Your task to perform on an android device: open app "Duolingo: language lessons" (install if not already installed), go to login, and select forgot password Image 0: 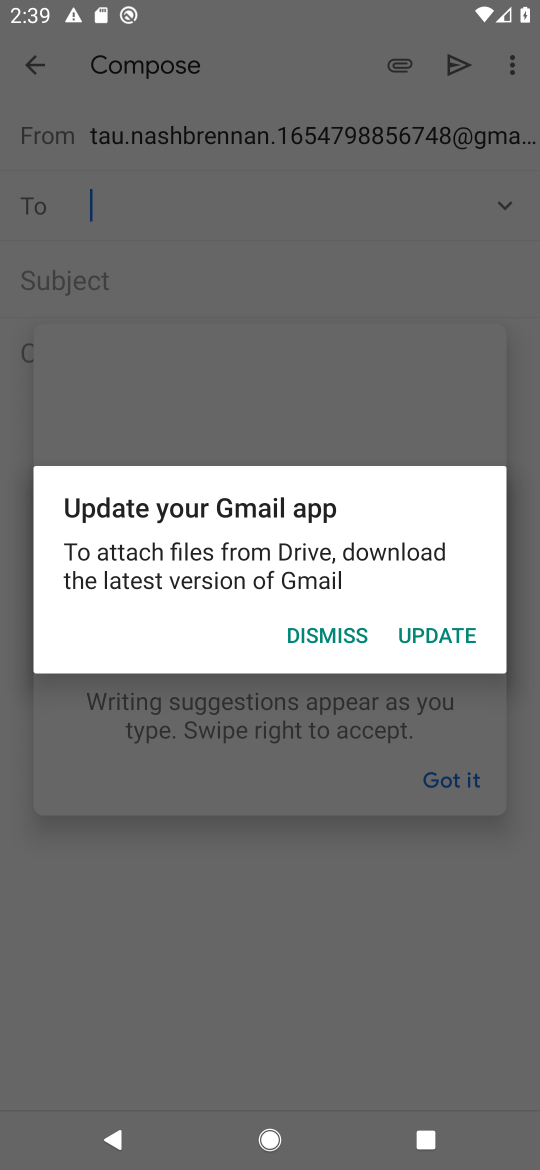
Step 0: press home button
Your task to perform on an android device: open app "Duolingo: language lessons" (install if not already installed), go to login, and select forgot password Image 1: 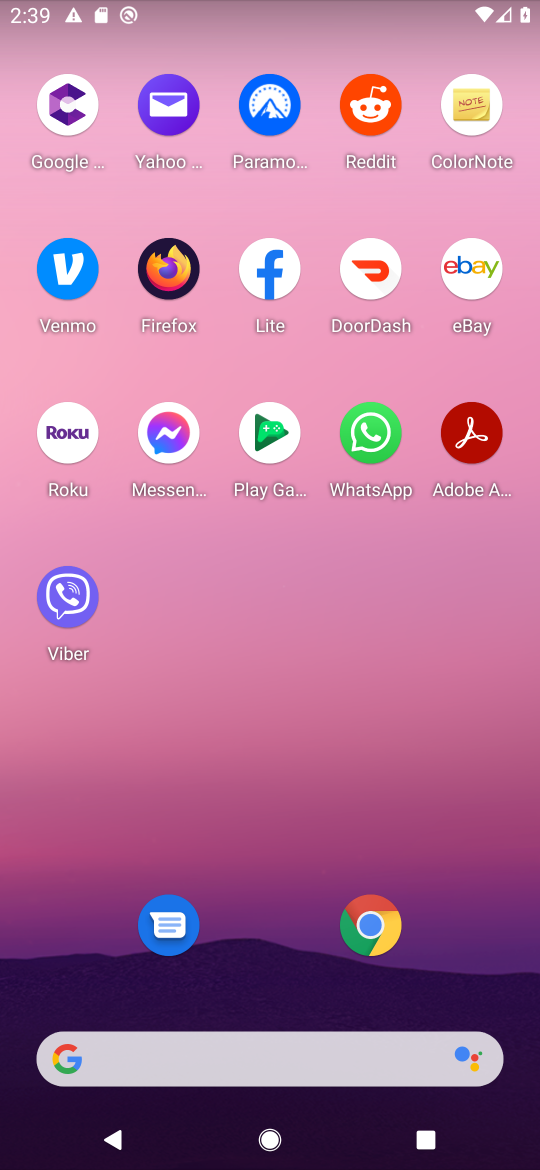
Step 1: drag from (274, 890) to (268, 247)
Your task to perform on an android device: open app "Duolingo: language lessons" (install if not already installed), go to login, and select forgot password Image 2: 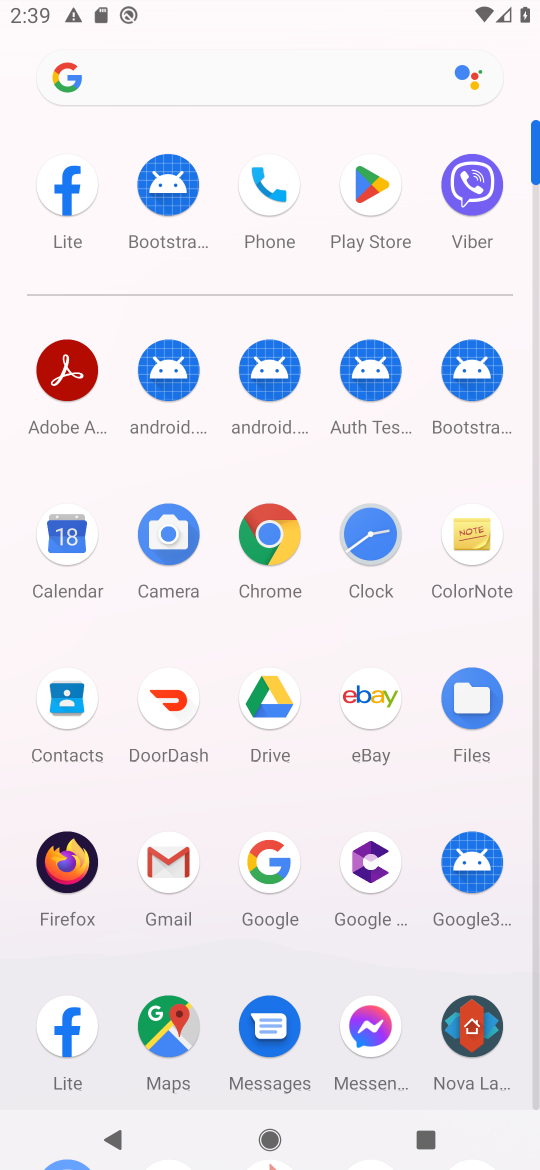
Step 2: click (367, 184)
Your task to perform on an android device: open app "Duolingo: language lessons" (install if not already installed), go to login, and select forgot password Image 3: 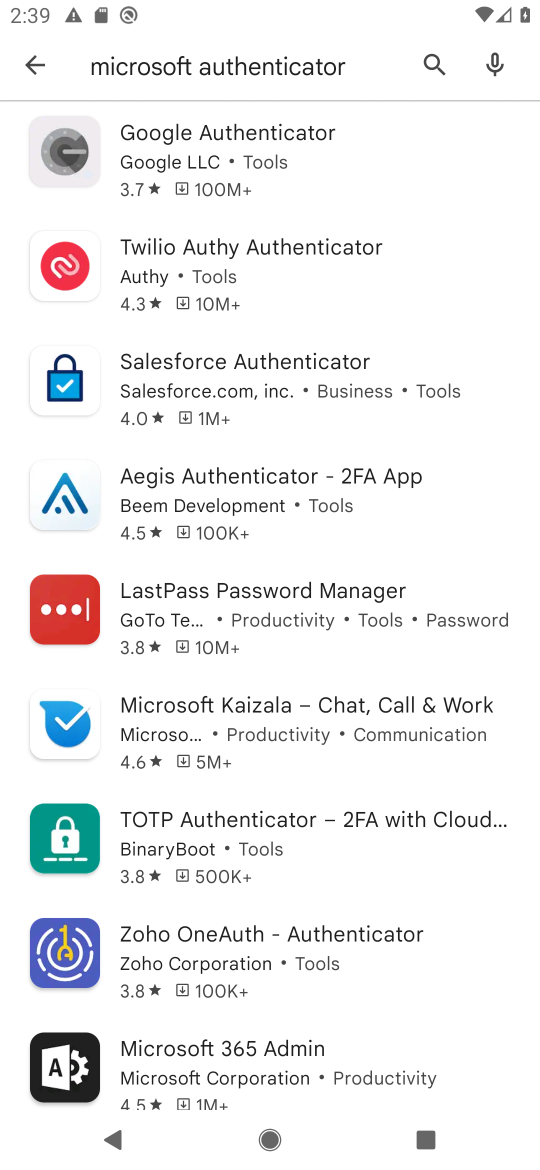
Step 3: click (35, 65)
Your task to perform on an android device: open app "Duolingo: language lessons" (install if not already installed), go to login, and select forgot password Image 4: 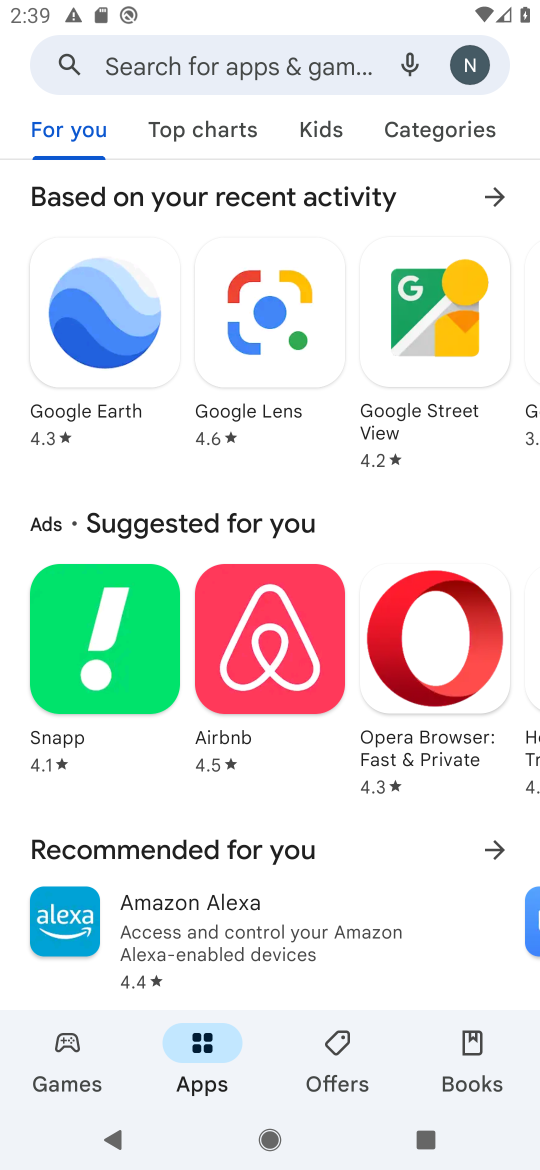
Step 4: click (191, 63)
Your task to perform on an android device: open app "Duolingo: language lessons" (install if not already installed), go to login, and select forgot password Image 5: 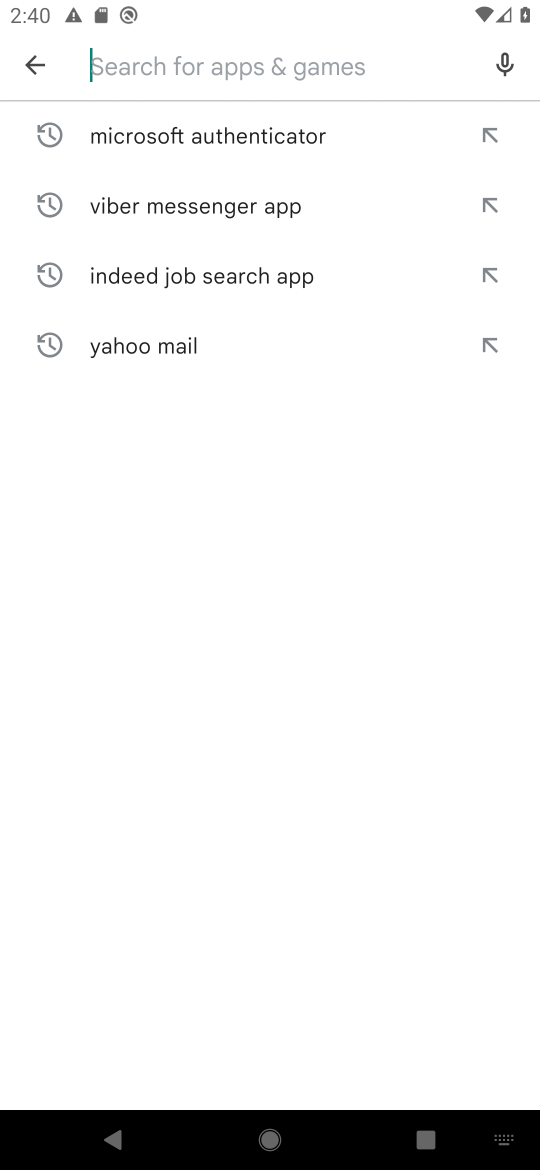
Step 5: type "Duolingo"
Your task to perform on an android device: open app "Duolingo: language lessons" (install if not already installed), go to login, and select forgot password Image 6: 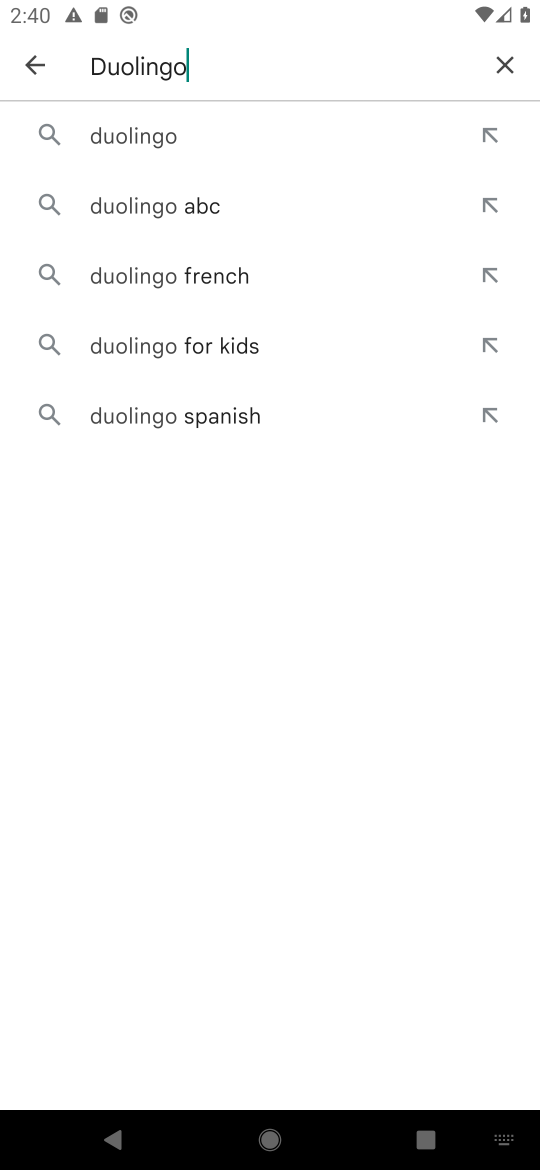
Step 6: click (139, 133)
Your task to perform on an android device: open app "Duolingo: language lessons" (install if not already installed), go to login, and select forgot password Image 7: 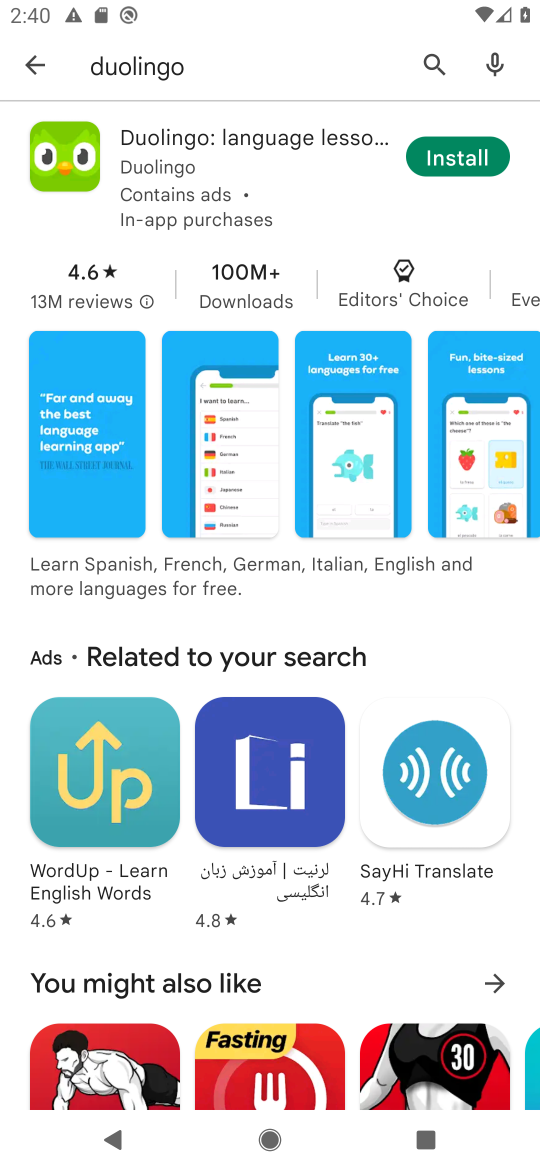
Step 7: click (453, 158)
Your task to perform on an android device: open app "Duolingo: language lessons" (install if not already installed), go to login, and select forgot password Image 8: 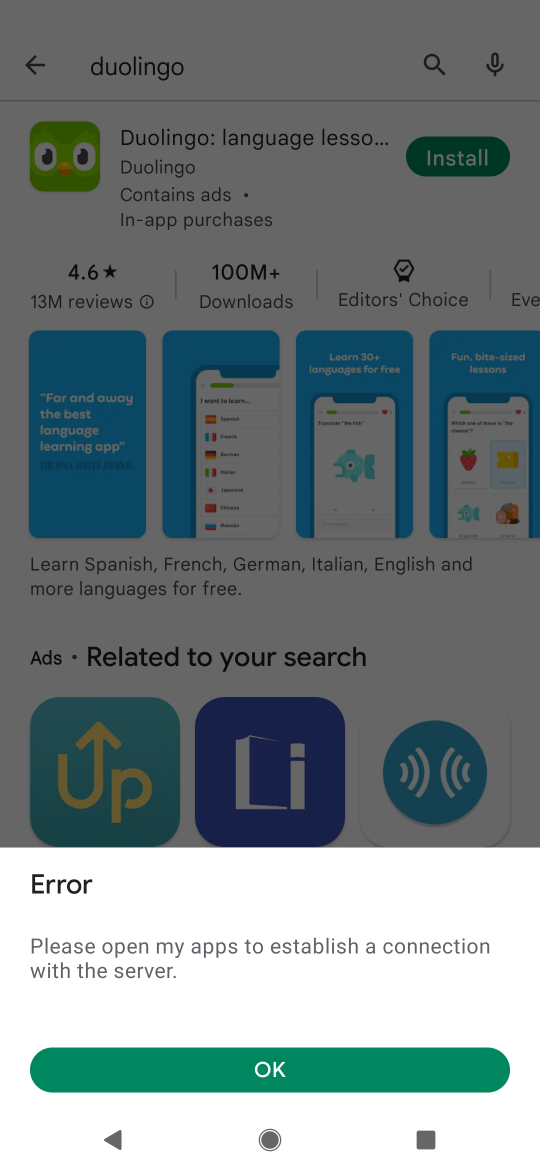
Step 8: click (315, 1082)
Your task to perform on an android device: open app "Duolingo: language lessons" (install if not already installed), go to login, and select forgot password Image 9: 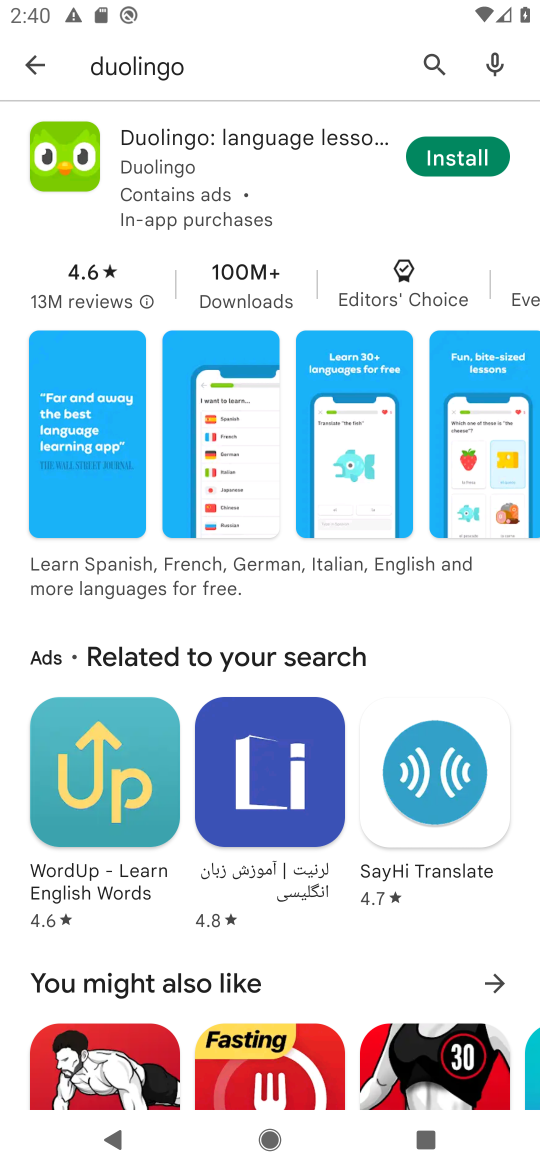
Step 9: task complete